Your task to perform on an android device: empty trash in the gmail app Image 0: 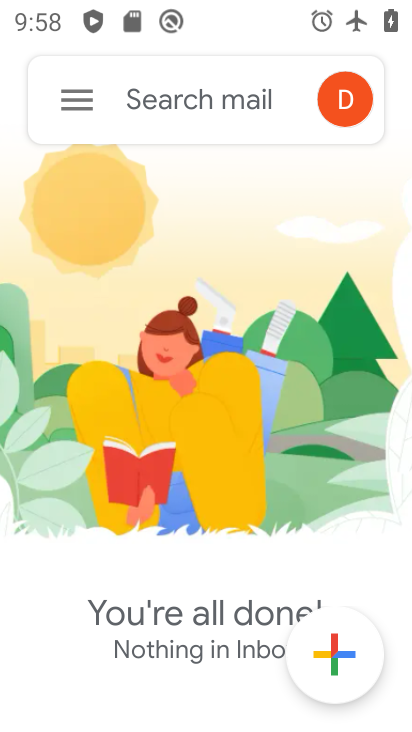
Step 0: click (81, 93)
Your task to perform on an android device: empty trash in the gmail app Image 1: 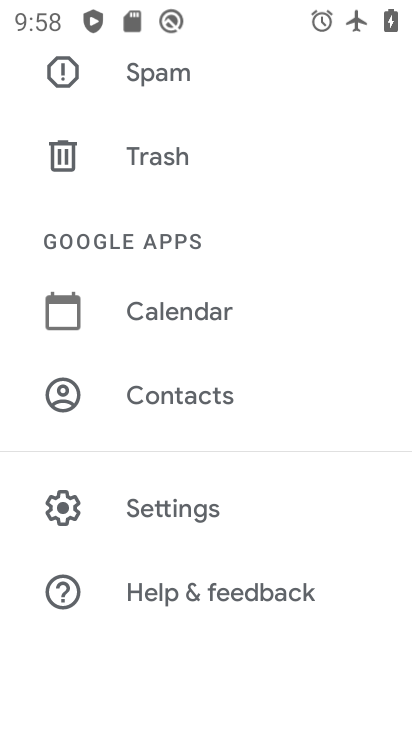
Step 1: click (163, 153)
Your task to perform on an android device: empty trash in the gmail app Image 2: 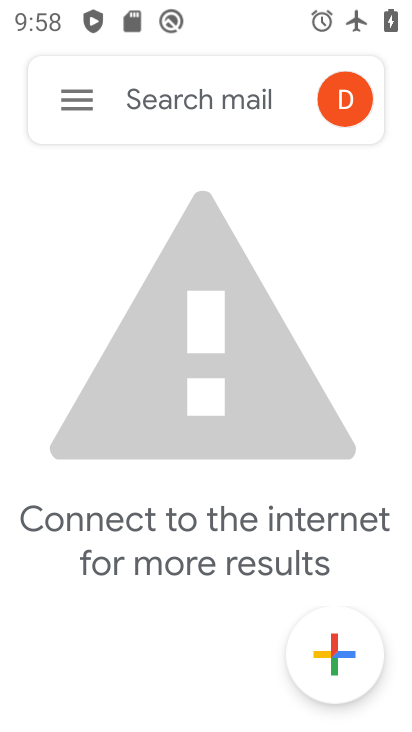
Step 2: task complete